Your task to perform on an android device: Open Maps and search for coffee Image 0: 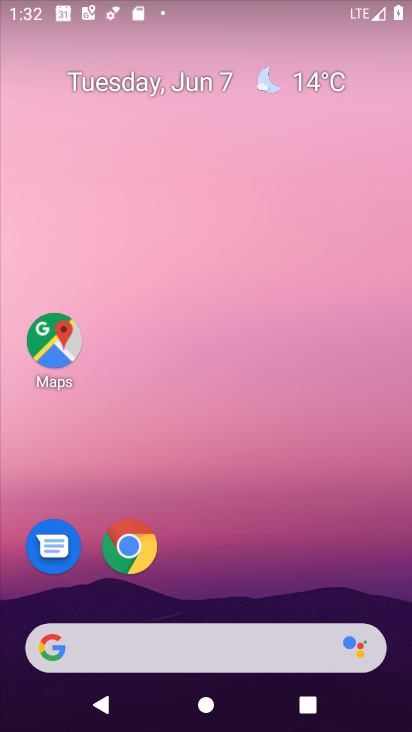
Step 0: press home button
Your task to perform on an android device: Open Maps and search for coffee Image 1: 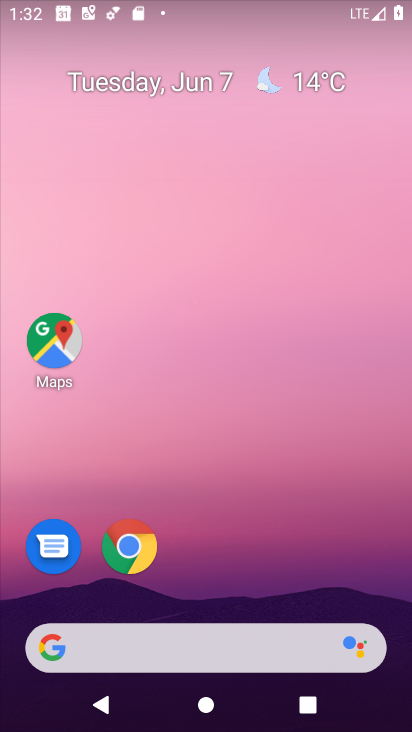
Step 1: click (54, 334)
Your task to perform on an android device: Open Maps and search for coffee Image 2: 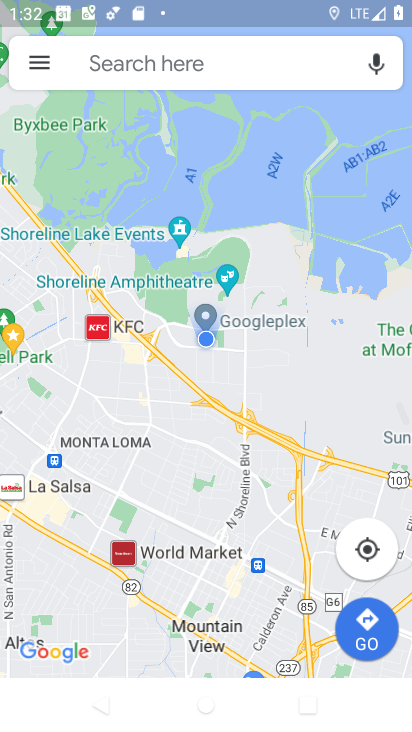
Step 2: click (128, 67)
Your task to perform on an android device: Open Maps and search for coffee Image 3: 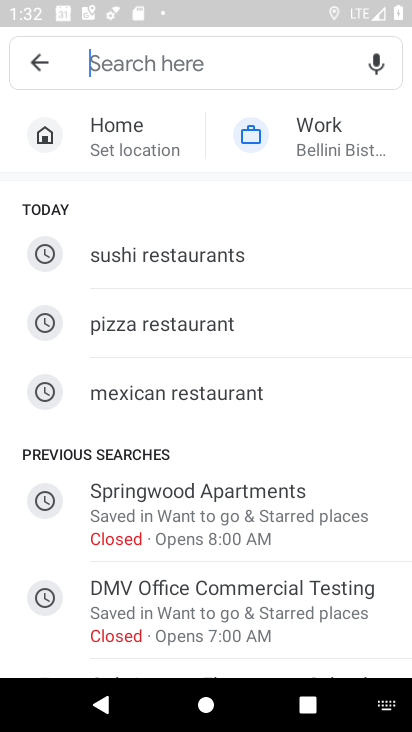
Step 3: type "coffee"
Your task to perform on an android device: Open Maps and search for coffee Image 4: 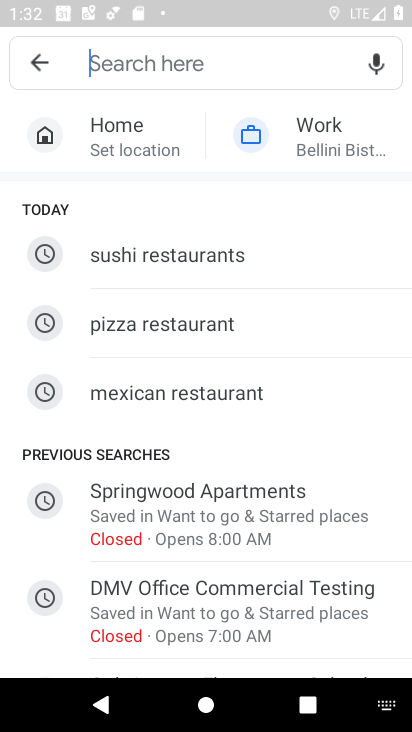
Step 4: click (168, 64)
Your task to perform on an android device: Open Maps and search for coffee Image 5: 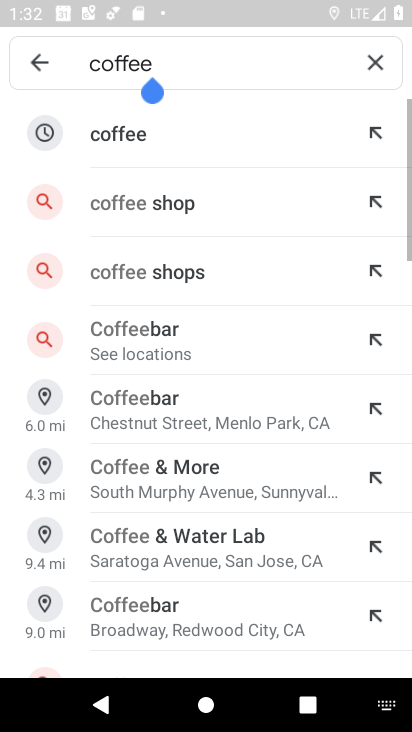
Step 5: click (145, 138)
Your task to perform on an android device: Open Maps and search for coffee Image 6: 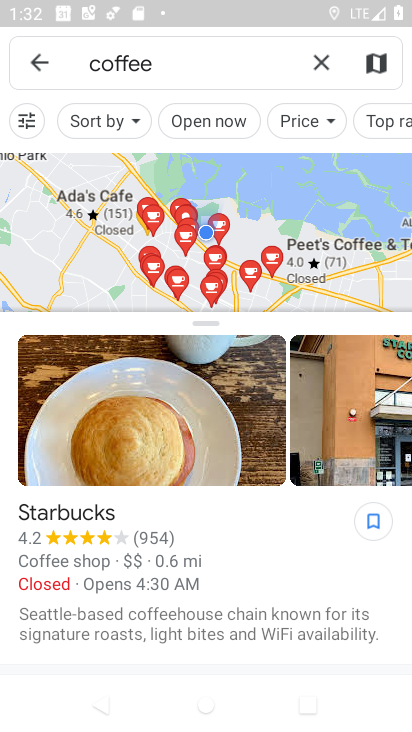
Step 6: task complete